Your task to perform on an android device: What is the recent news? Image 0: 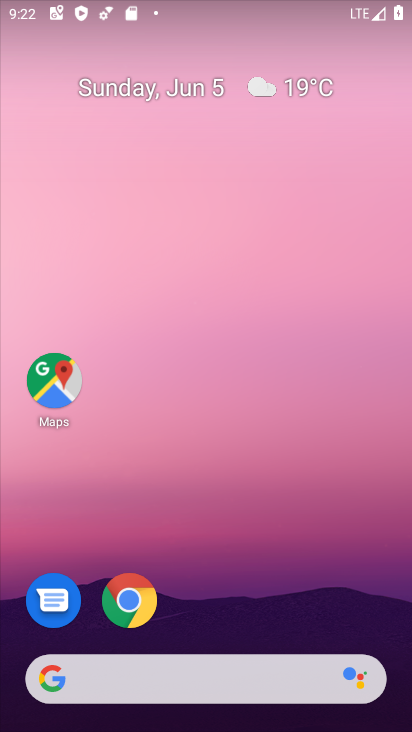
Step 0: drag from (236, 630) to (181, 252)
Your task to perform on an android device: What is the recent news? Image 1: 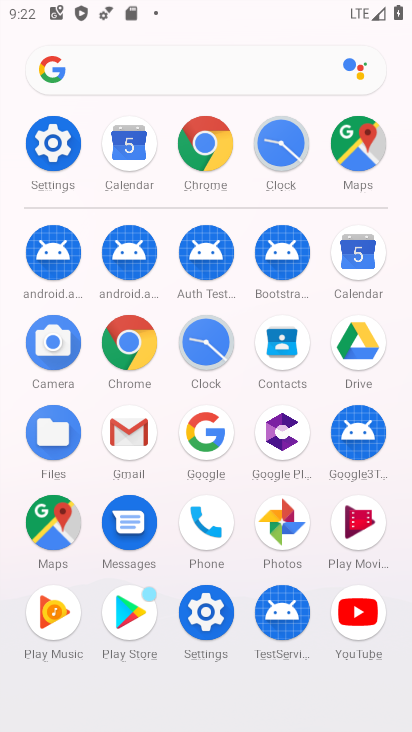
Step 1: click (203, 159)
Your task to perform on an android device: What is the recent news? Image 2: 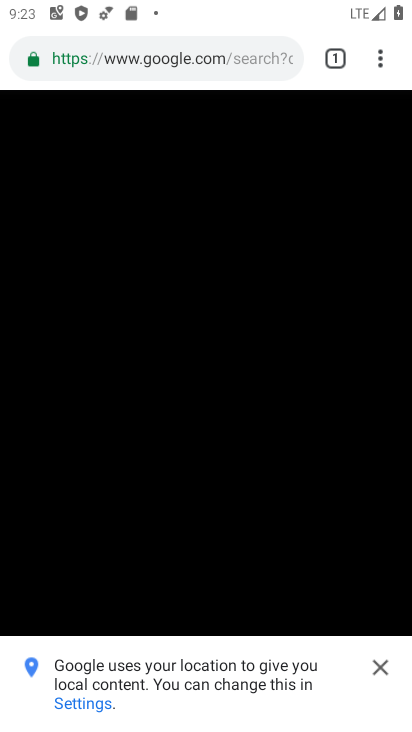
Step 2: click (163, 65)
Your task to perform on an android device: What is the recent news? Image 3: 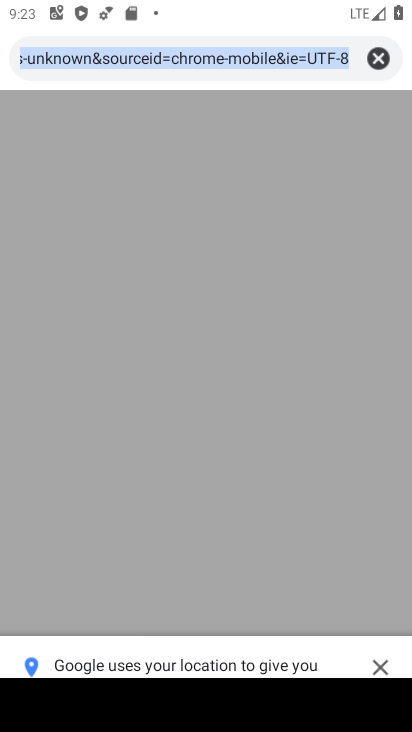
Step 3: type "What is the recent news?"
Your task to perform on an android device: What is the recent news? Image 4: 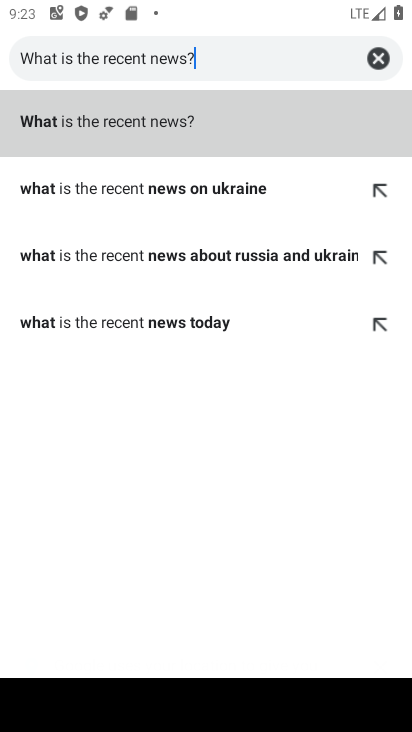
Step 4: click (161, 126)
Your task to perform on an android device: What is the recent news? Image 5: 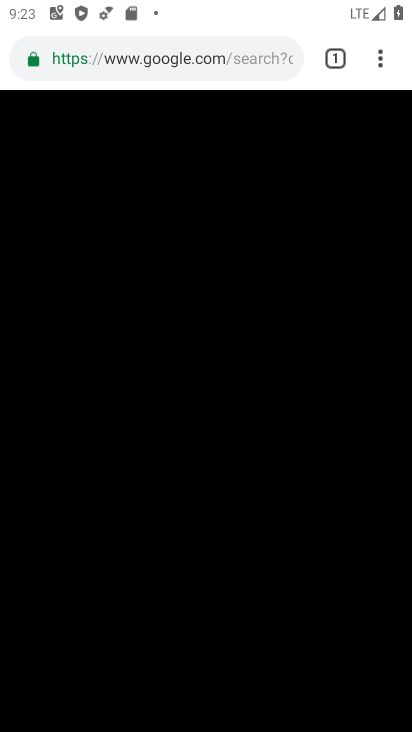
Step 5: type "What is the recent news?"
Your task to perform on an android device: What is the recent news? Image 6: 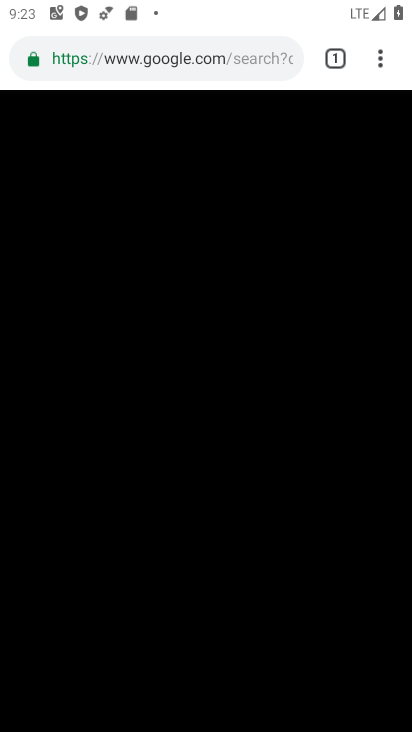
Step 6: click (244, 55)
Your task to perform on an android device: What is the recent news? Image 7: 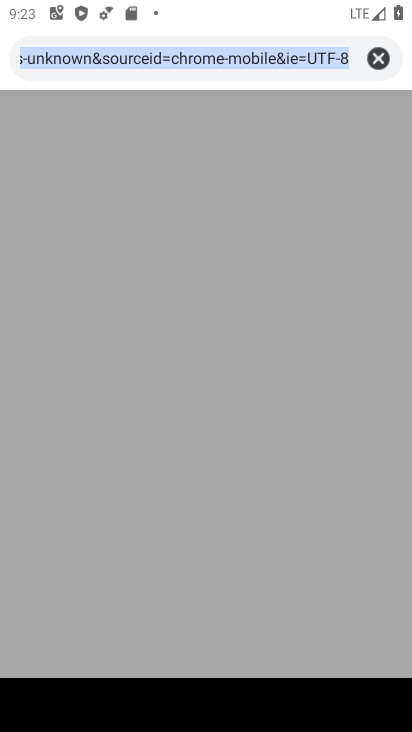
Step 7: type "What is the recent news?"
Your task to perform on an android device: What is the recent news? Image 8: 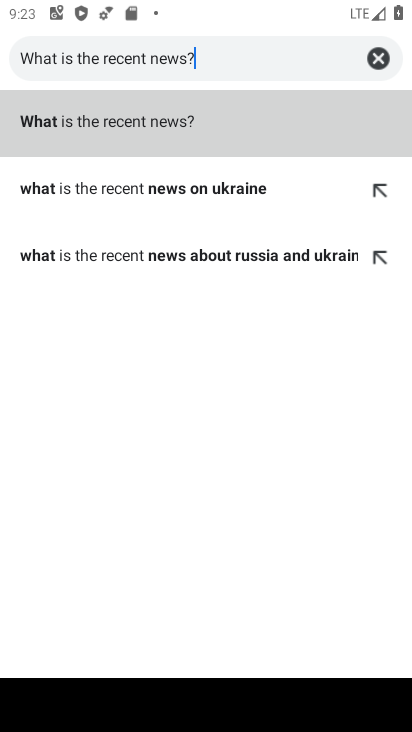
Step 8: press enter
Your task to perform on an android device: What is the recent news? Image 9: 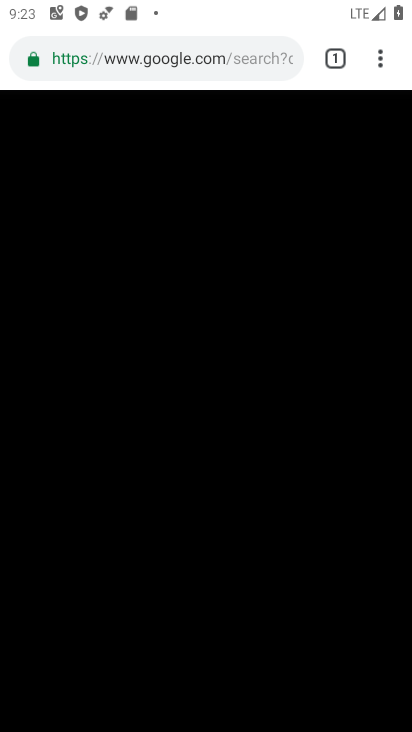
Step 9: task complete